Your task to perform on an android device: Go to sound settings Image 0: 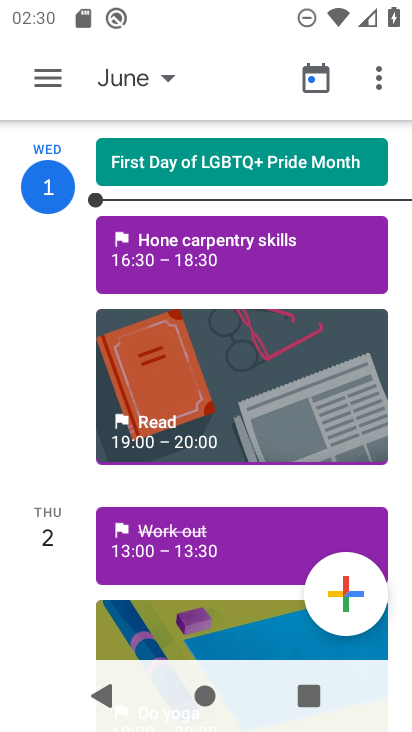
Step 0: press home button
Your task to perform on an android device: Go to sound settings Image 1: 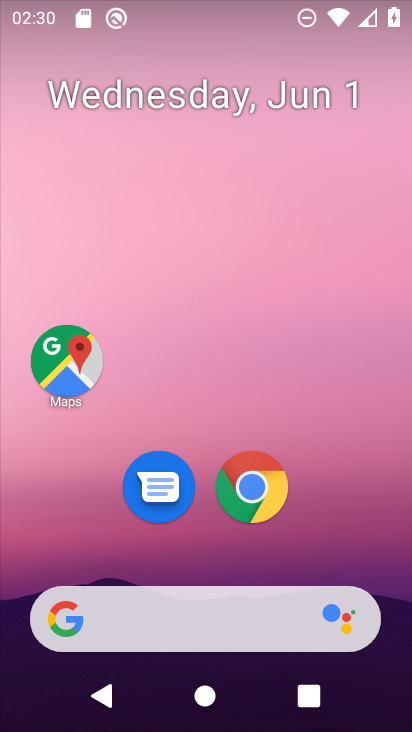
Step 1: drag from (208, 524) to (217, 236)
Your task to perform on an android device: Go to sound settings Image 2: 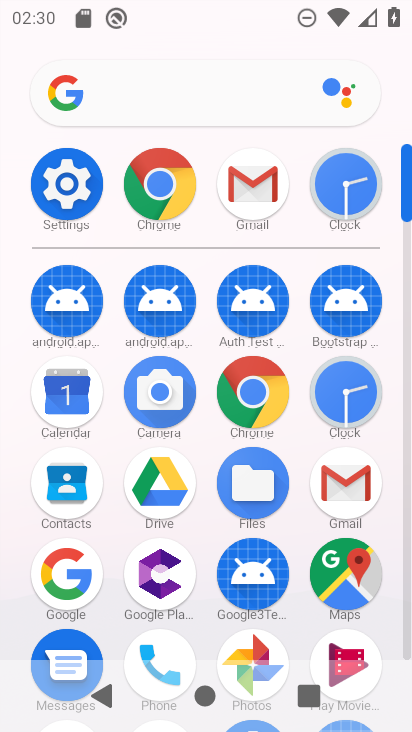
Step 2: click (84, 176)
Your task to perform on an android device: Go to sound settings Image 3: 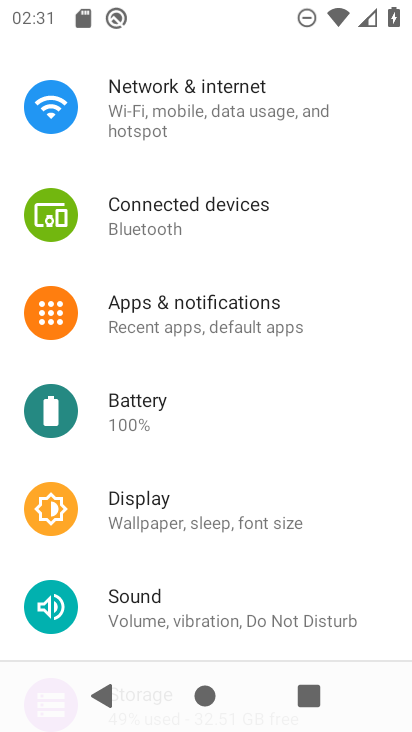
Step 3: click (197, 595)
Your task to perform on an android device: Go to sound settings Image 4: 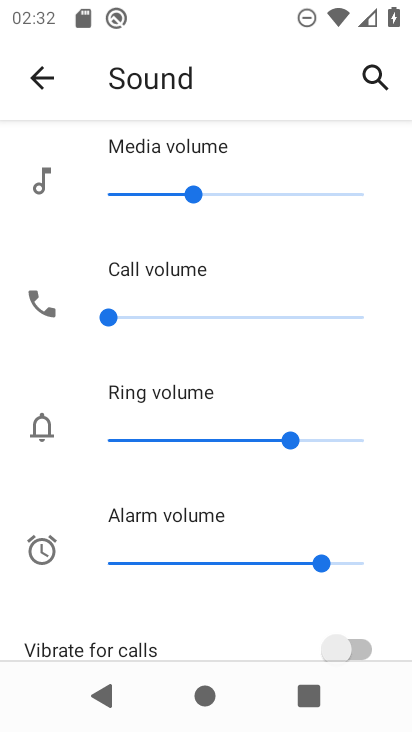
Step 4: task complete